Your task to perform on an android device: What is the recent news? Image 0: 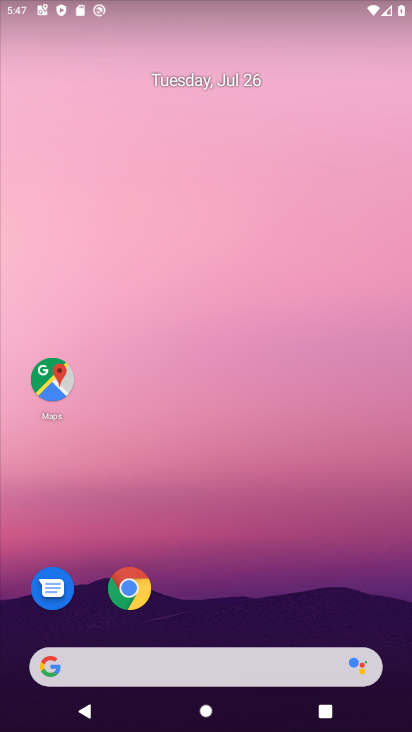
Step 0: drag from (268, 723) to (252, 184)
Your task to perform on an android device: What is the recent news? Image 1: 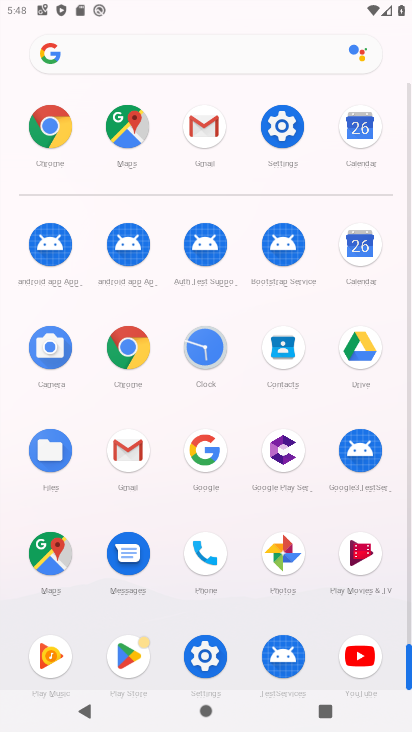
Step 1: drag from (207, 475) to (182, 171)
Your task to perform on an android device: What is the recent news? Image 2: 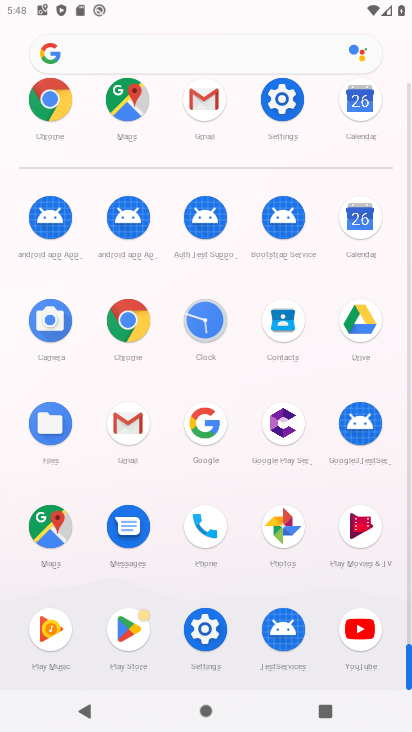
Step 2: click (216, 419)
Your task to perform on an android device: What is the recent news? Image 3: 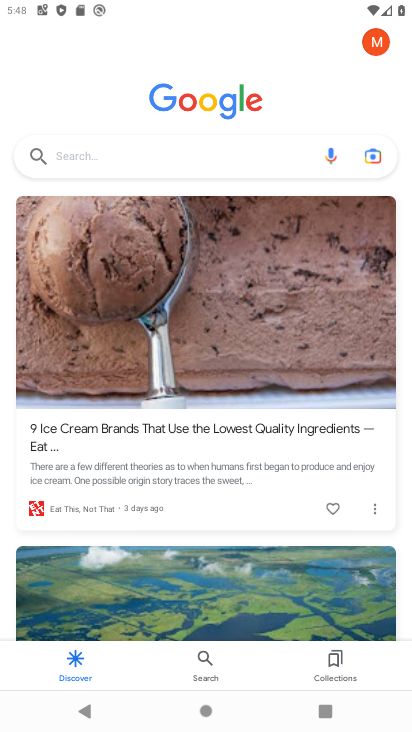
Step 3: click (199, 152)
Your task to perform on an android device: What is the recent news? Image 4: 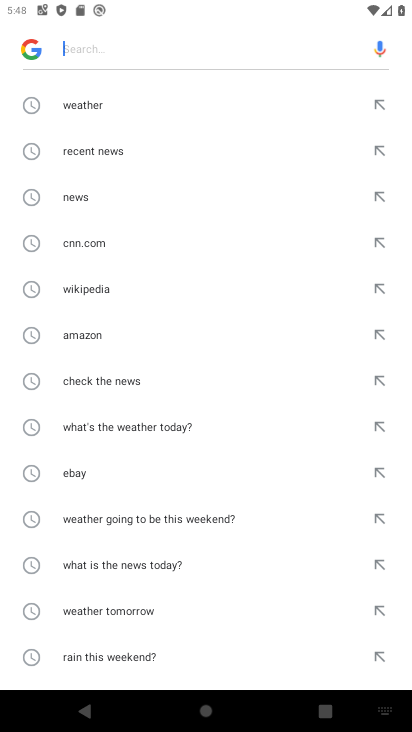
Step 4: click (96, 148)
Your task to perform on an android device: What is the recent news? Image 5: 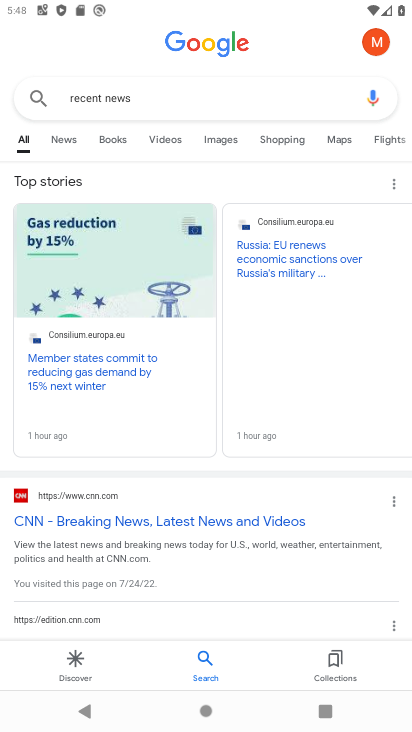
Step 5: task complete